Your task to perform on an android device: Go to ESPN.com Image 0: 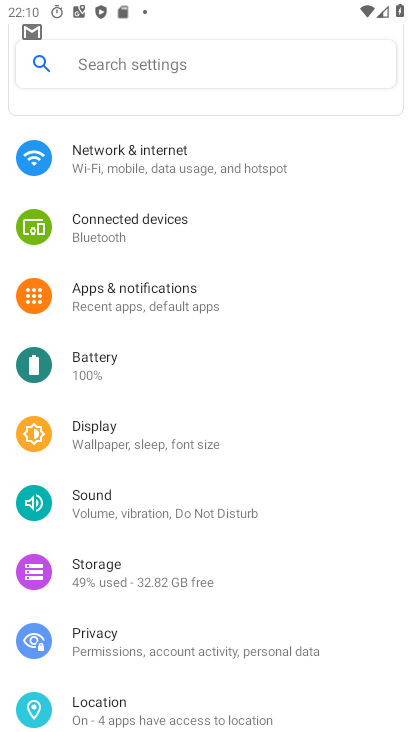
Step 0: press home button
Your task to perform on an android device: Go to ESPN.com Image 1: 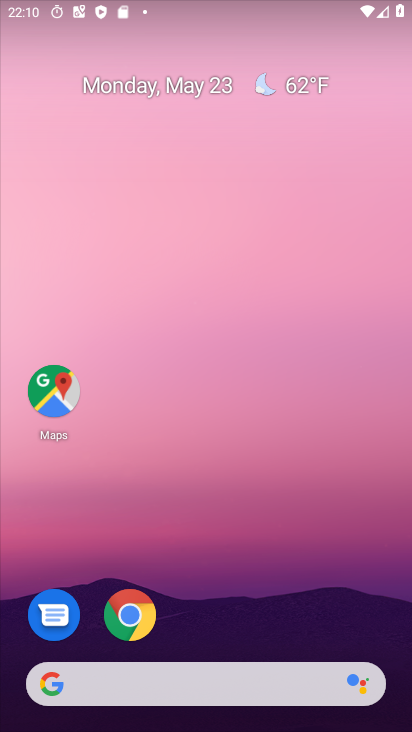
Step 1: drag from (213, 603) to (166, 108)
Your task to perform on an android device: Go to ESPN.com Image 2: 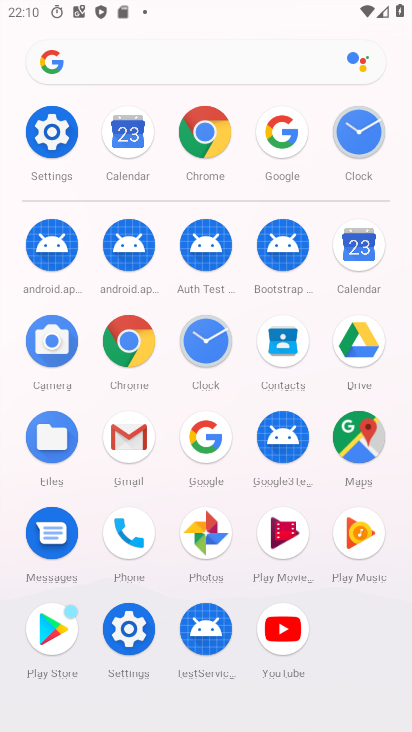
Step 2: click (201, 435)
Your task to perform on an android device: Go to ESPN.com Image 3: 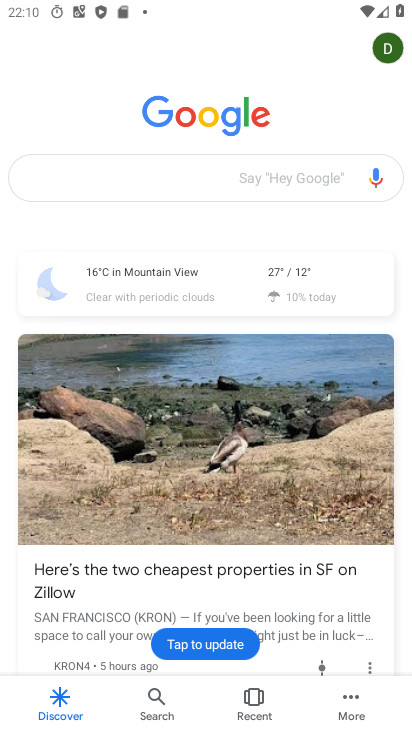
Step 3: click (132, 173)
Your task to perform on an android device: Go to ESPN.com Image 4: 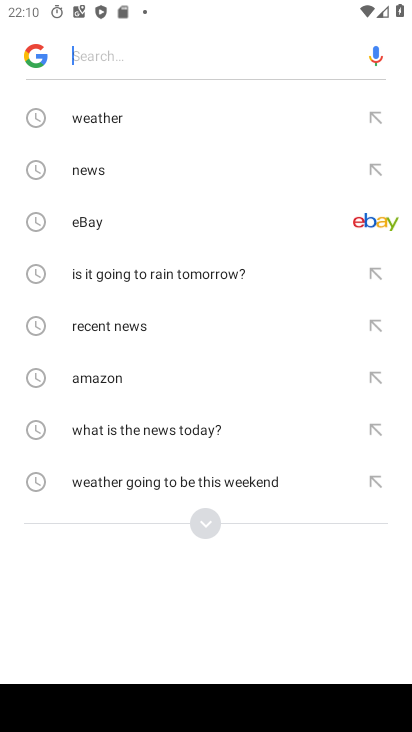
Step 4: type "espn.com"
Your task to perform on an android device: Go to ESPN.com Image 5: 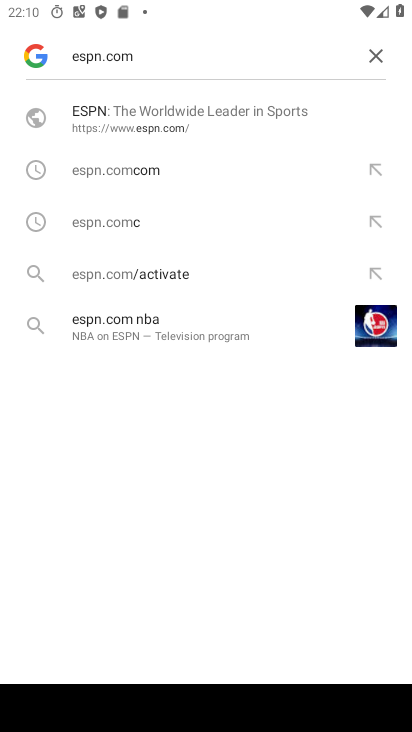
Step 5: click (186, 119)
Your task to perform on an android device: Go to ESPN.com Image 6: 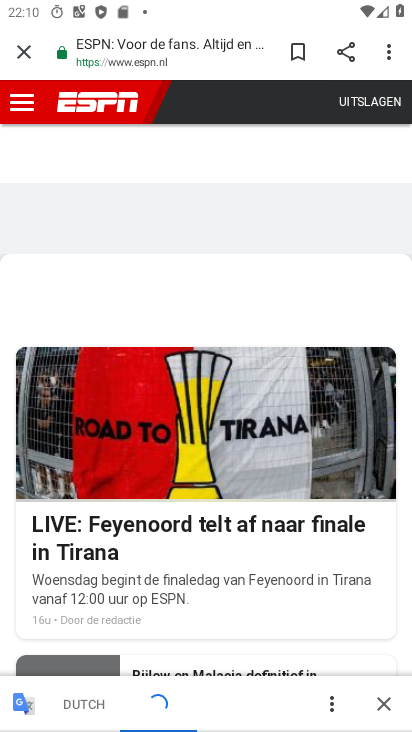
Step 6: task complete